Your task to perform on an android device: see sites visited before in the chrome app Image 0: 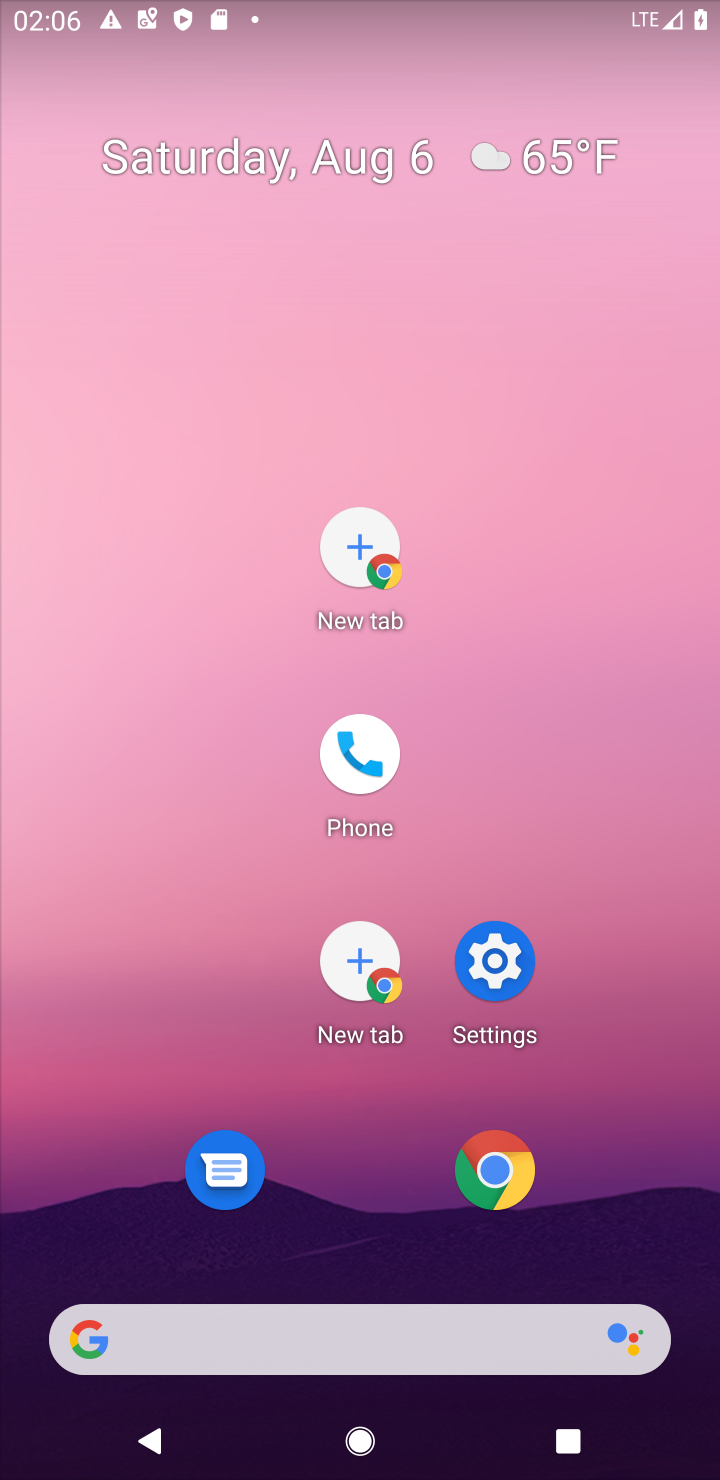
Step 0: click (487, 1177)
Your task to perform on an android device: see sites visited before in the chrome app Image 1: 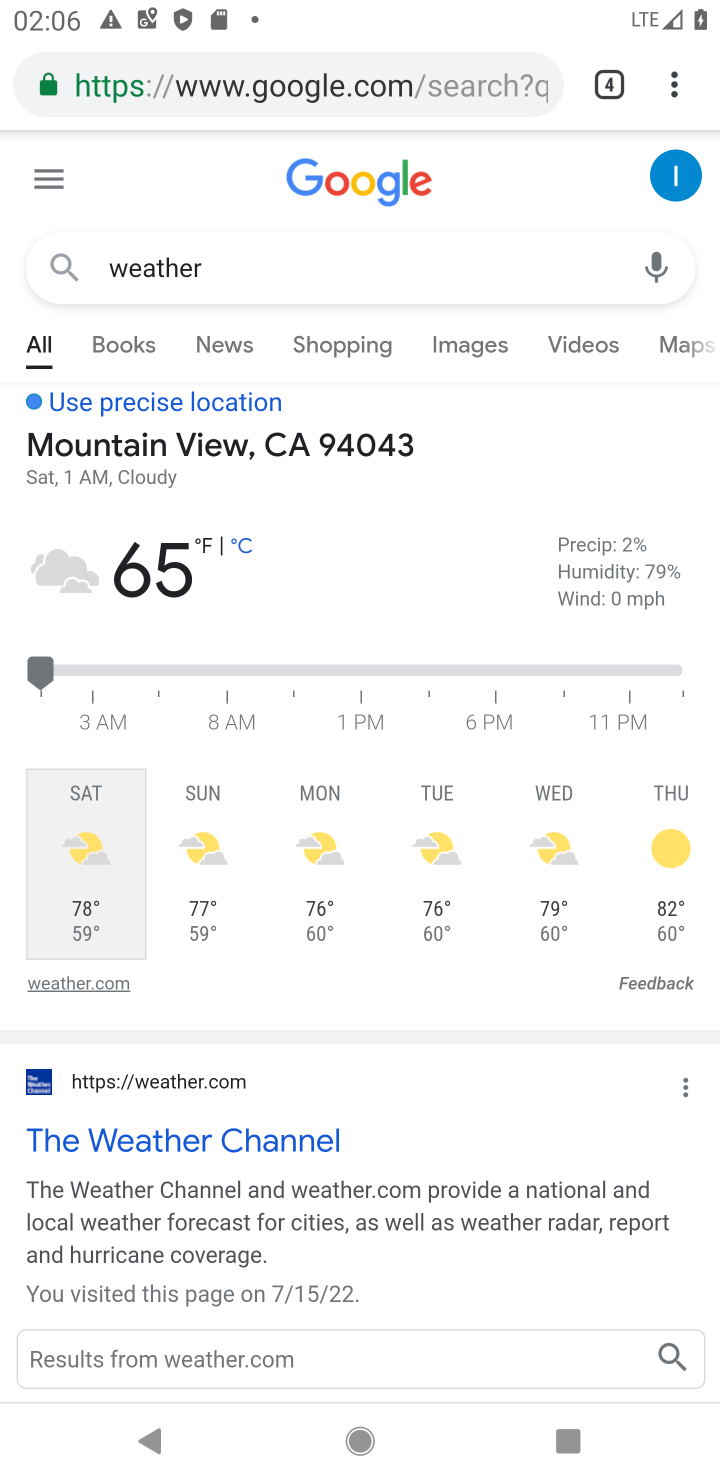
Step 1: click (672, 96)
Your task to perform on an android device: see sites visited before in the chrome app Image 2: 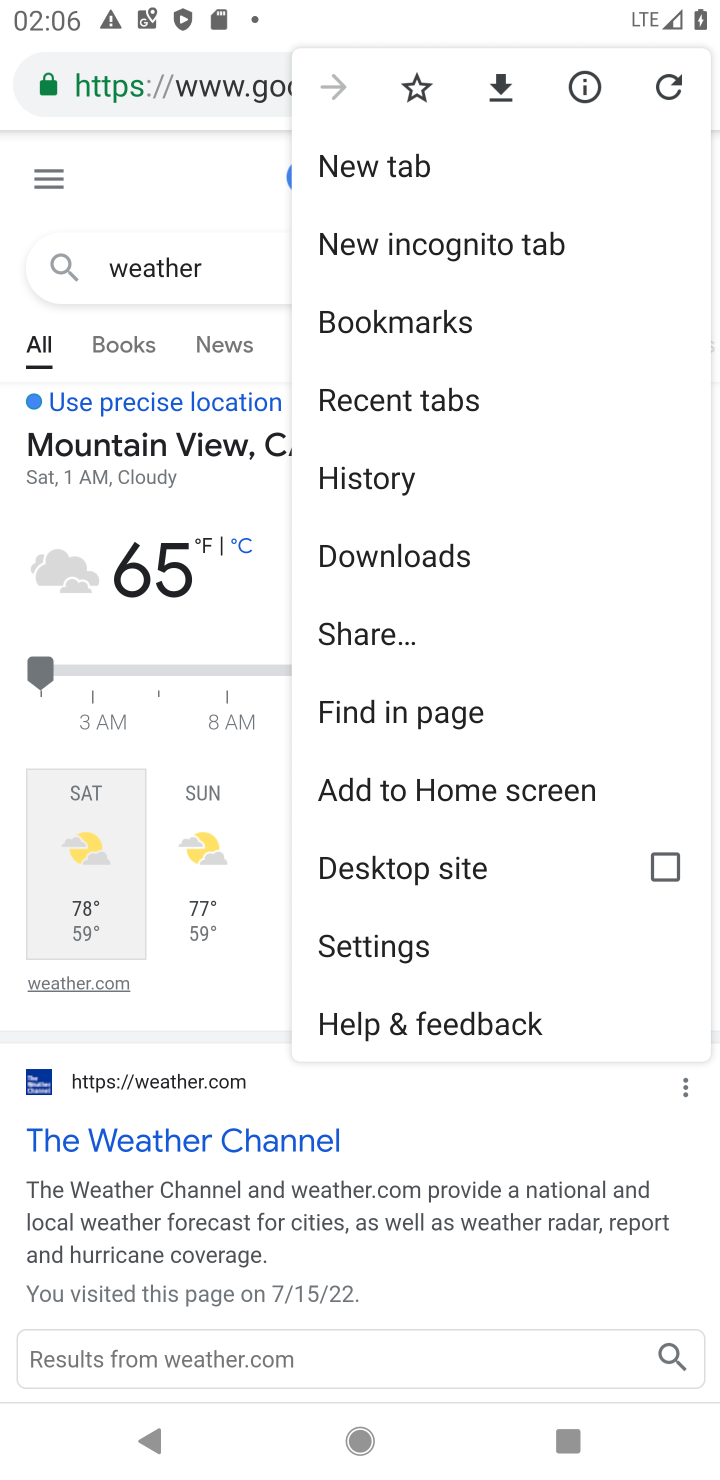
Step 2: click (403, 412)
Your task to perform on an android device: see sites visited before in the chrome app Image 3: 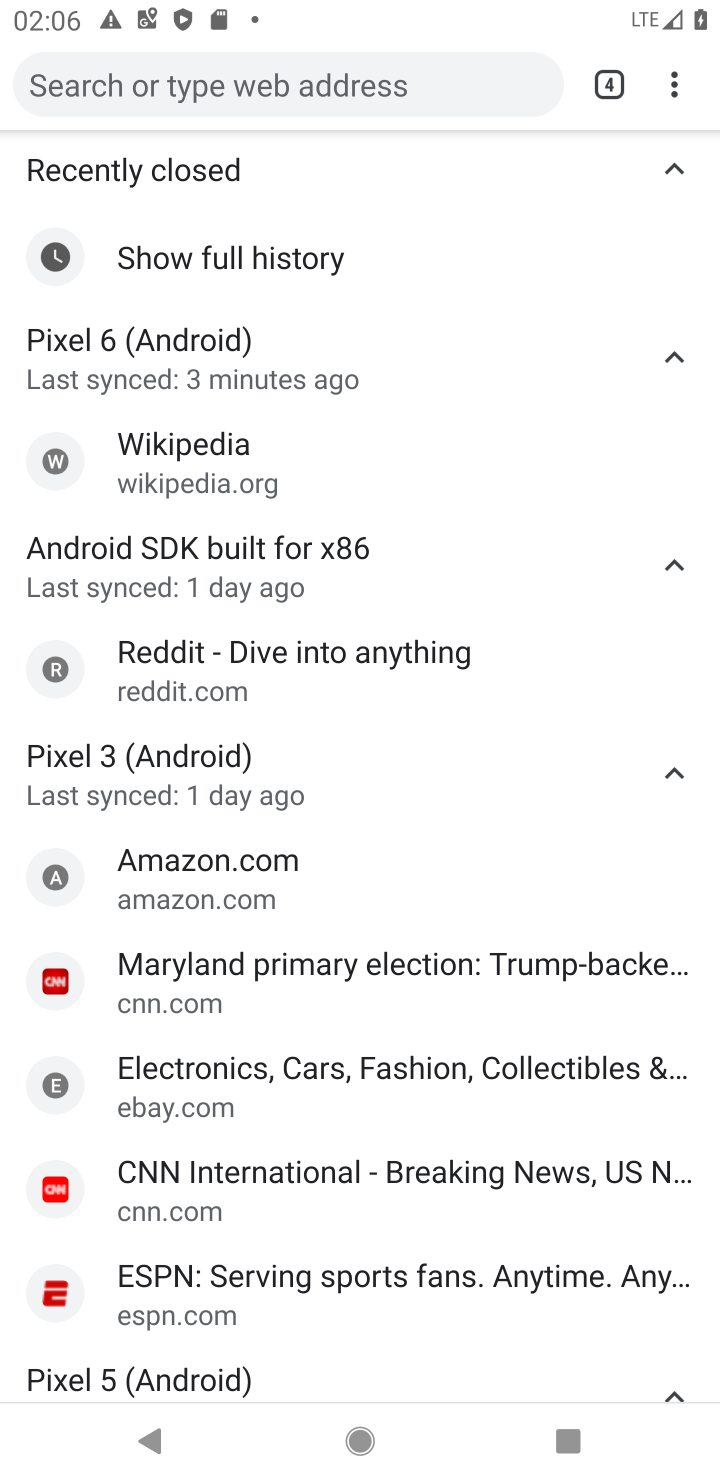
Step 3: task complete